Your task to perform on an android device: open wifi settings Image 0: 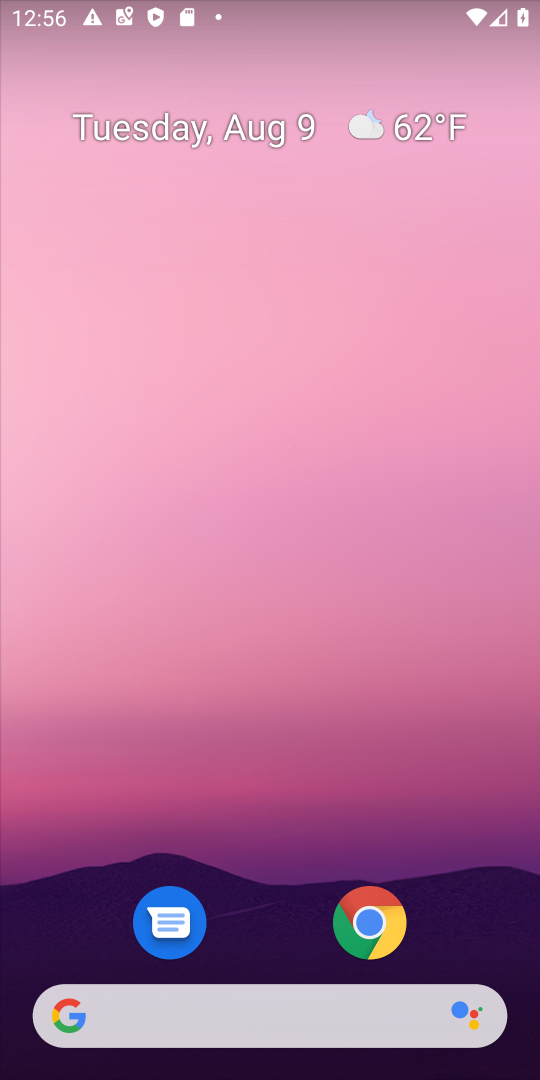
Step 0: drag from (273, 952) to (296, 147)
Your task to perform on an android device: open wifi settings Image 1: 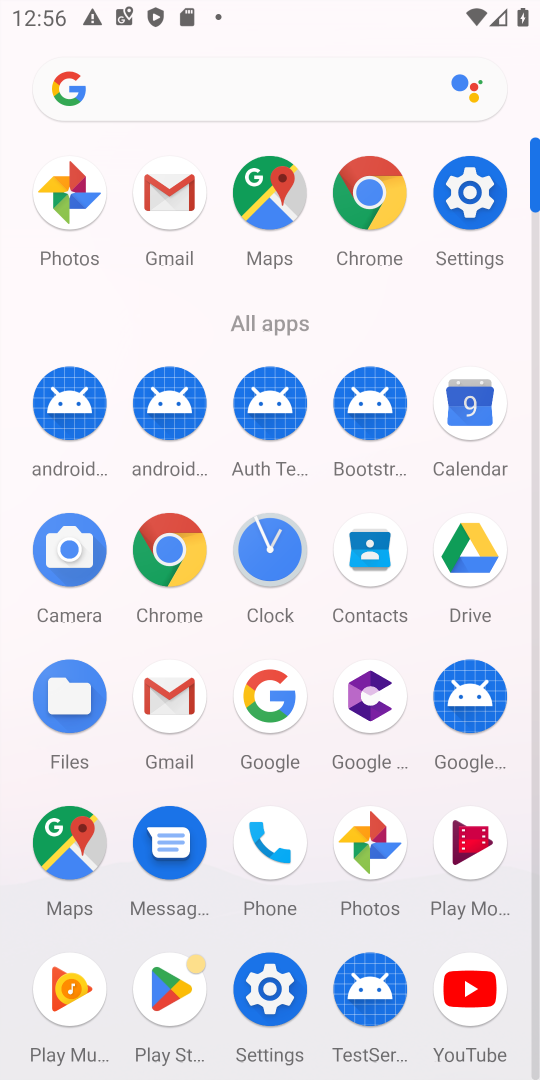
Step 1: click (275, 1013)
Your task to perform on an android device: open wifi settings Image 2: 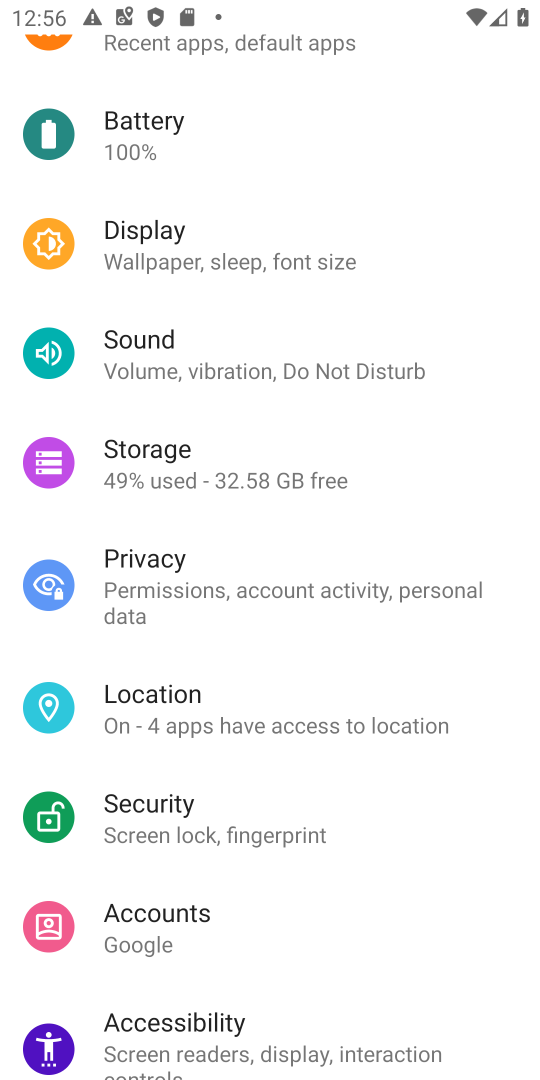
Step 2: drag from (164, 124) to (173, 676)
Your task to perform on an android device: open wifi settings Image 3: 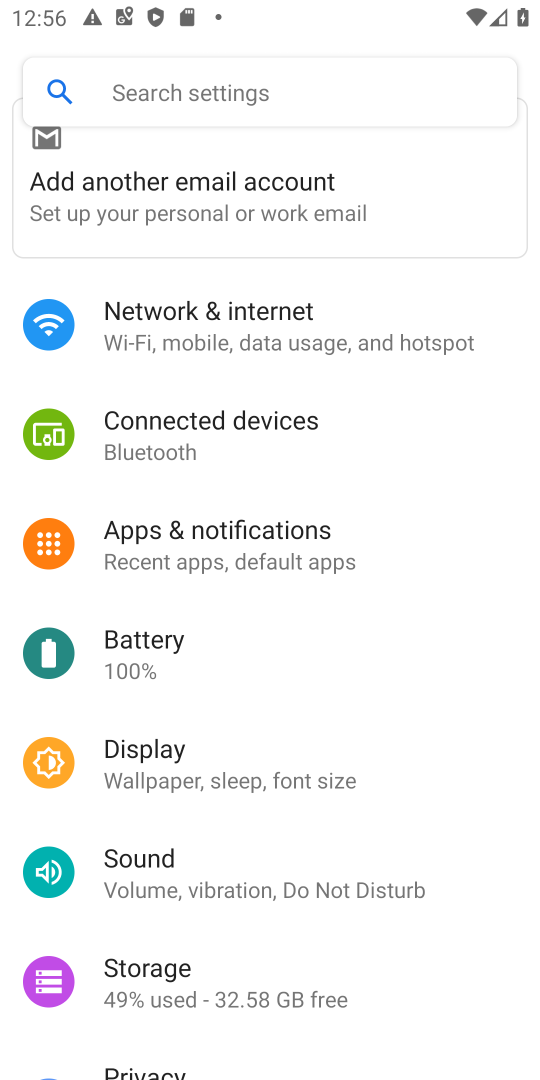
Step 3: click (167, 373)
Your task to perform on an android device: open wifi settings Image 4: 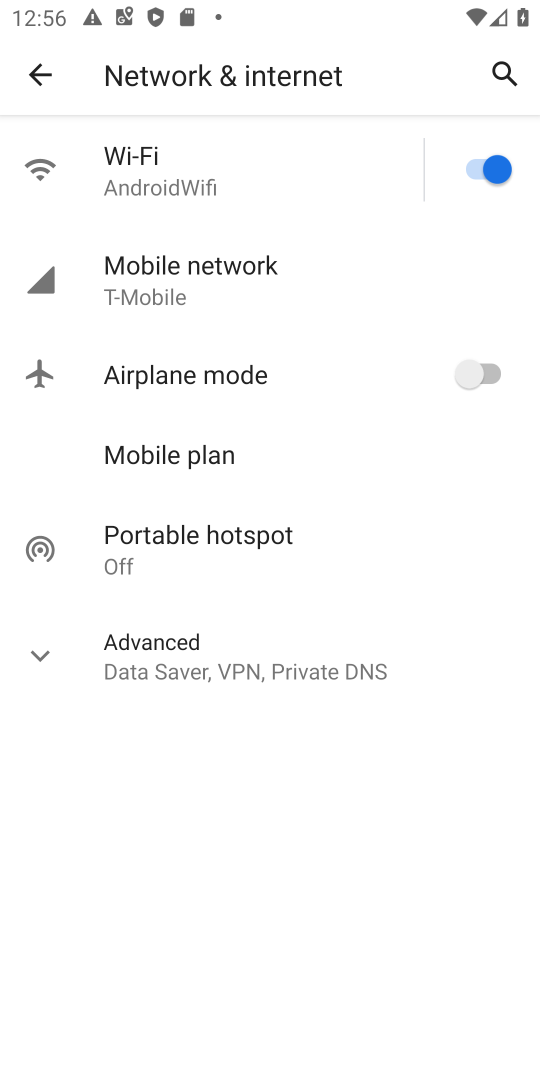
Step 4: click (233, 183)
Your task to perform on an android device: open wifi settings Image 5: 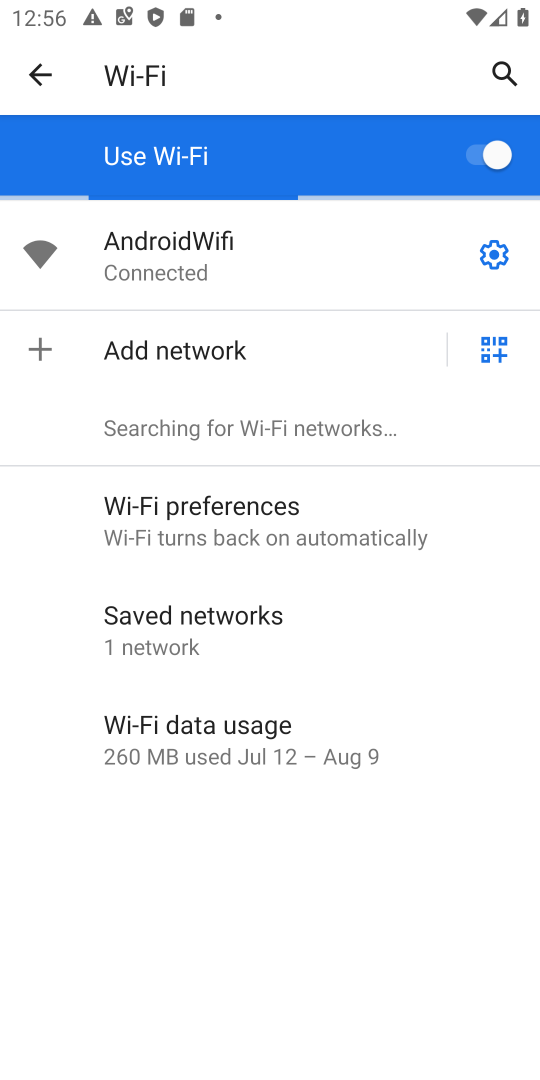
Step 5: task complete